Your task to perform on an android device: toggle airplane mode Image 0: 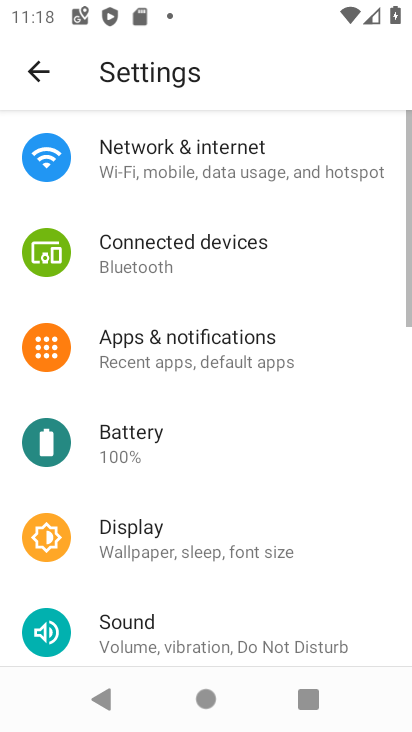
Step 0: click (196, 177)
Your task to perform on an android device: toggle airplane mode Image 1: 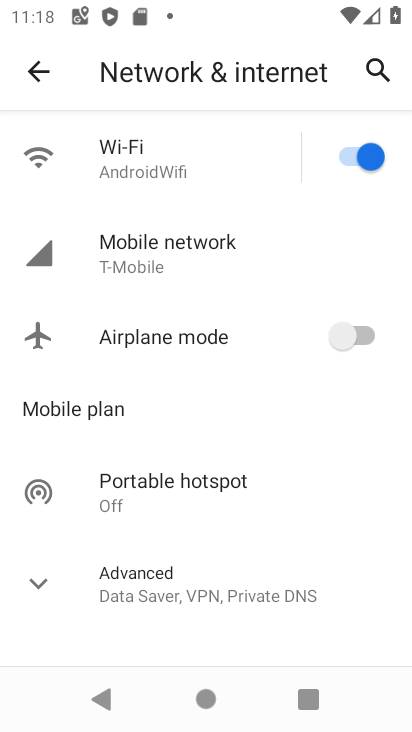
Step 1: click (349, 329)
Your task to perform on an android device: toggle airplane mode Image 2: 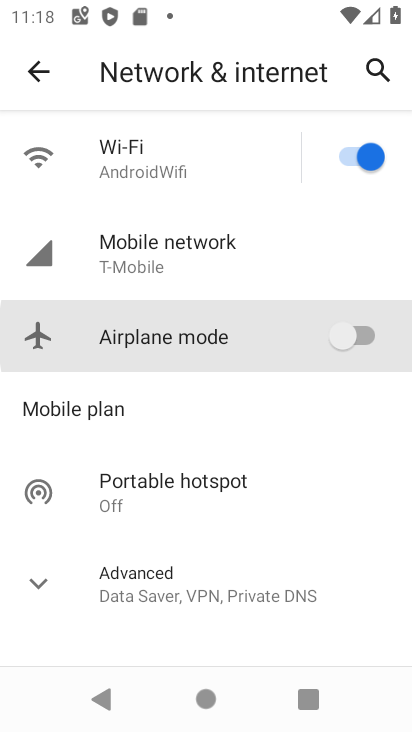
Step 2: task complete